Your task to perform on an android device: Open settings on Google Maps Image 0: 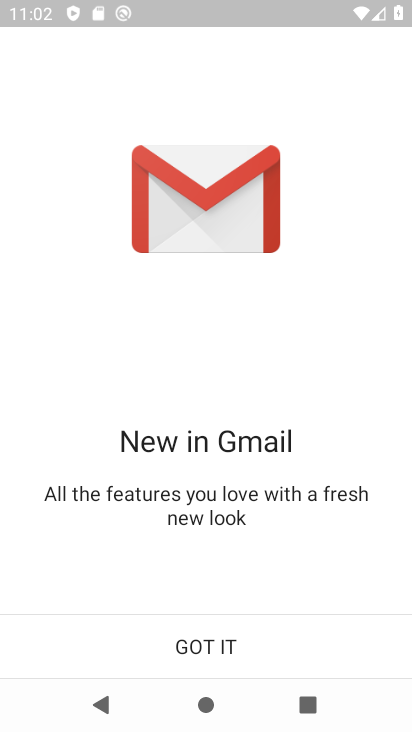
Step 0: press home button
Your task to perform on an android device: Open settings on Google Maps Image 1: 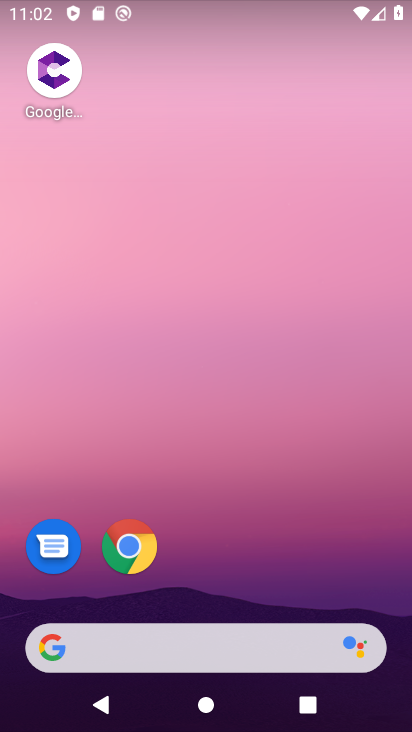
Step 1: drag from (237, 556) to (301, 7)
Your task to perform on an android device: Open settings on Google Maps Image 2: 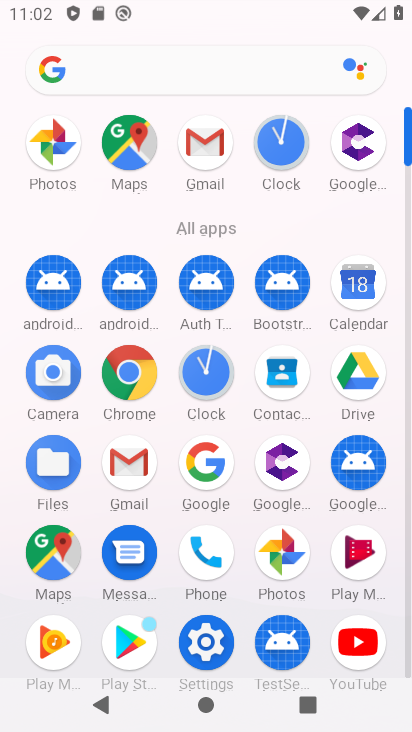
Step 2: click (54, 557)
Your task to perform on an android device: Open settings on Google Maps Image 3: 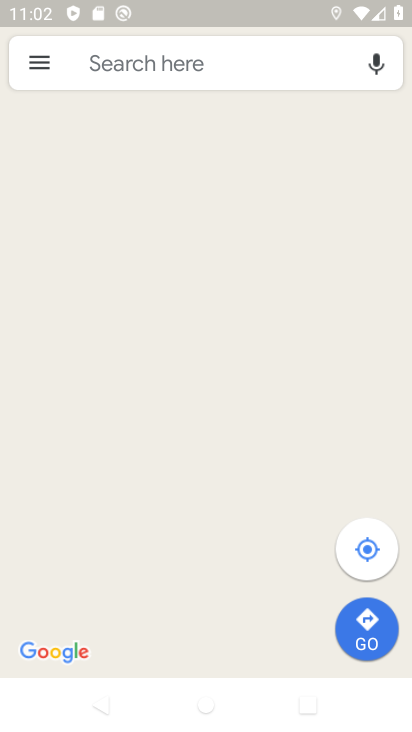
Step 3: click (42, 56)
Your task to perform on an android device: Open settings on Google Maps Image 4: 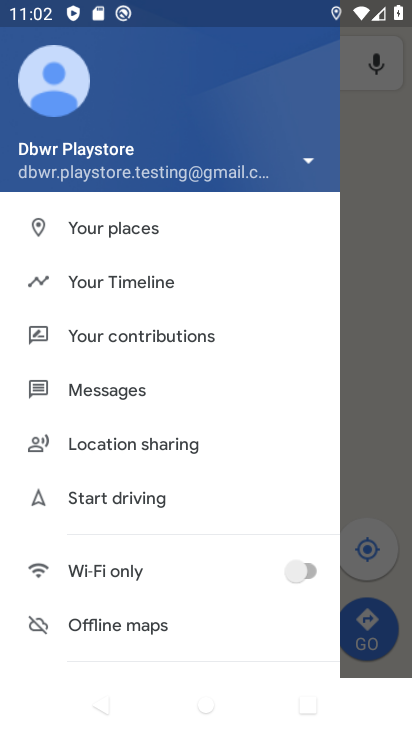
Step 4: drag from (204, 535) to (208, 177)
Your task to perform on an android device: Open settings on Google Maps Image 5: 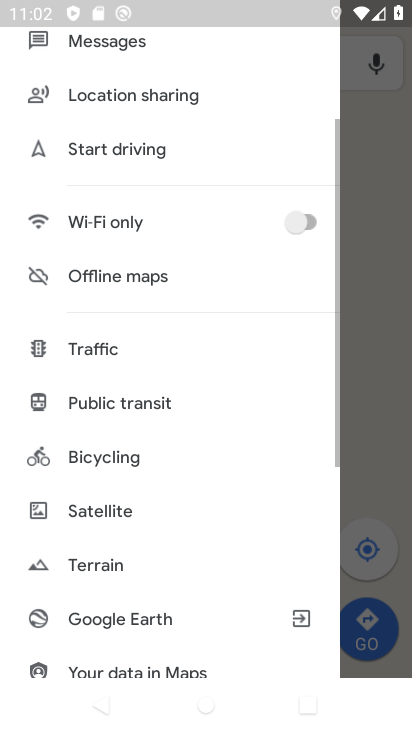
Step 5: drag from (168, 600) to (207, 167)
Your task to perform on an android device: Open settings on Google Maps Image 6: 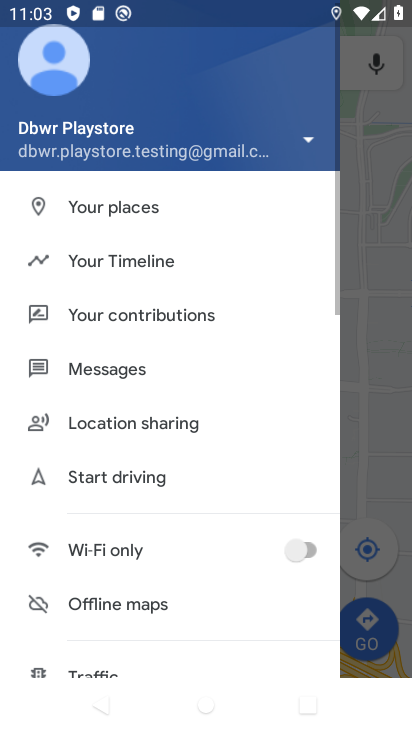
Step 6: drag from (209, 584) to (199, 112)
Your task to perform on an android device: Open settings on Google Maps Image 7: 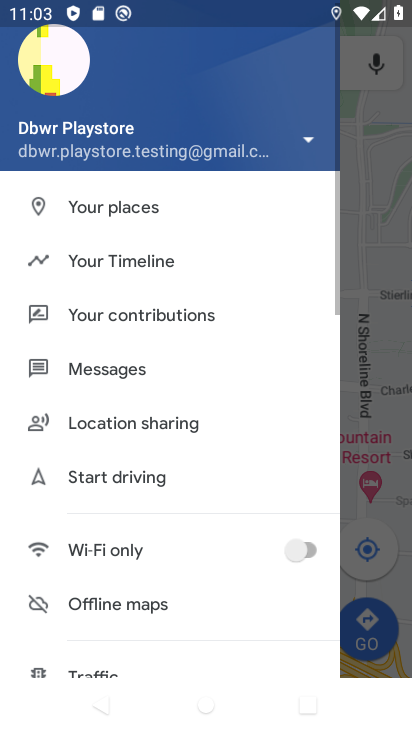
Step 7: drag from (164, 603) to (189, 112)
Your task to perform on an android device: Open settings on Google Maps Image 8: 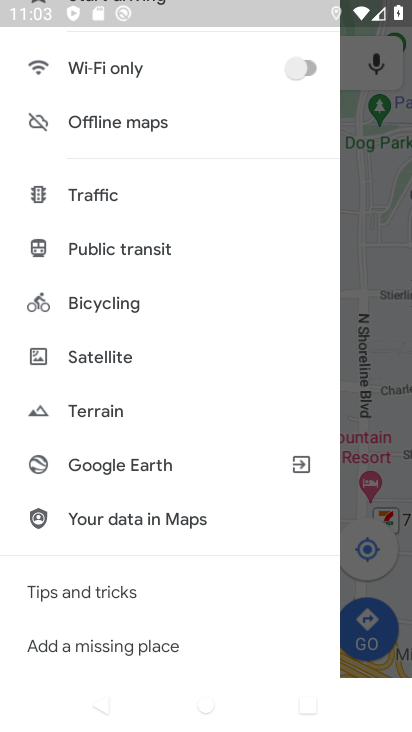
Step 8: drag from (118, 621) to (152, 262)
Your task to perform on an android device: Open settings on Google Maps Image 9: 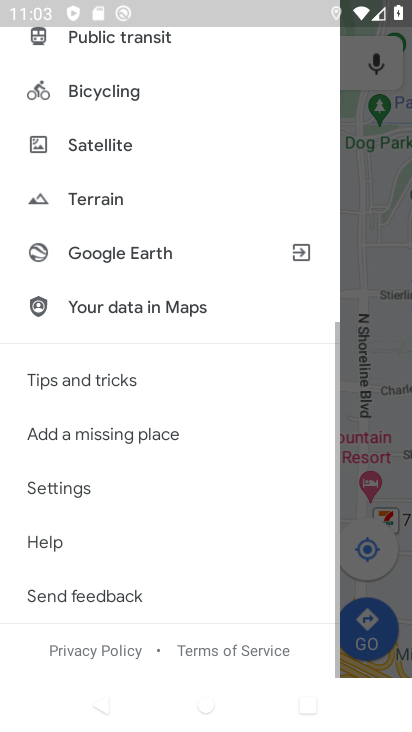
Step 9: click (49, 489)
Your task to perform on an android device: Open settings on Google Maps Image 10: 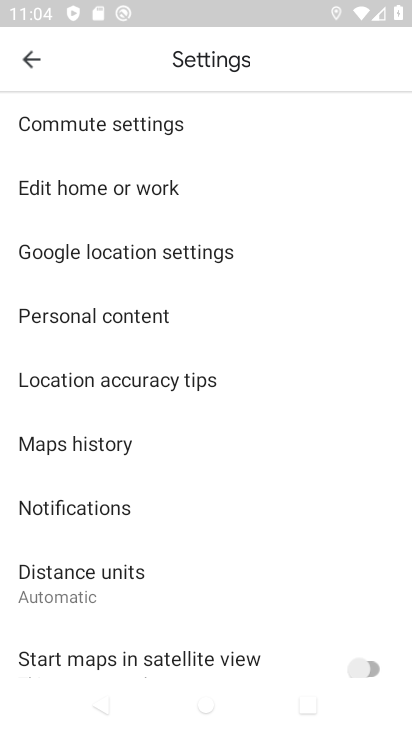
Step 10: task complete